Your task to perform on an android device: toggle pop-ups in chrome Image 0: 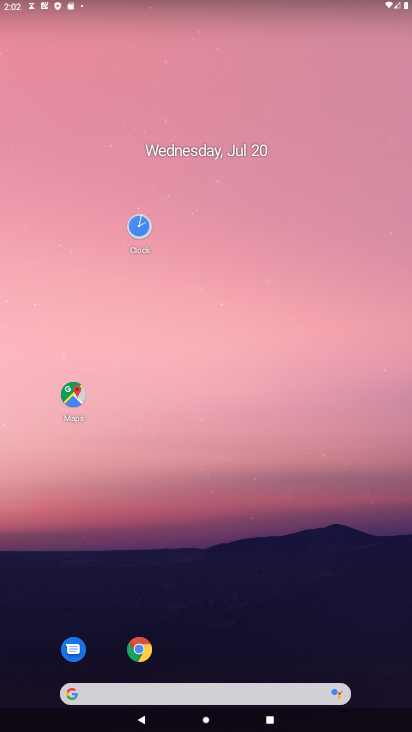
Step 0: click (143, 647)
Your task to perform on an android device: toggle pop-ups in chrome Image 1: 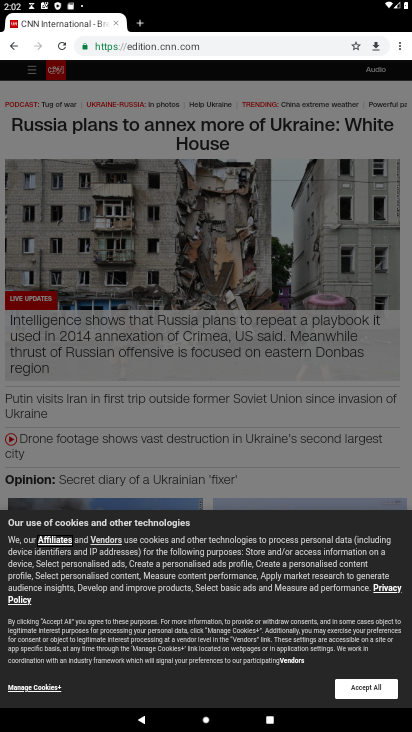
Step 1: click (397, 55)
Your task to perform on an android device: toggle pop-ups in chrome Image 2: 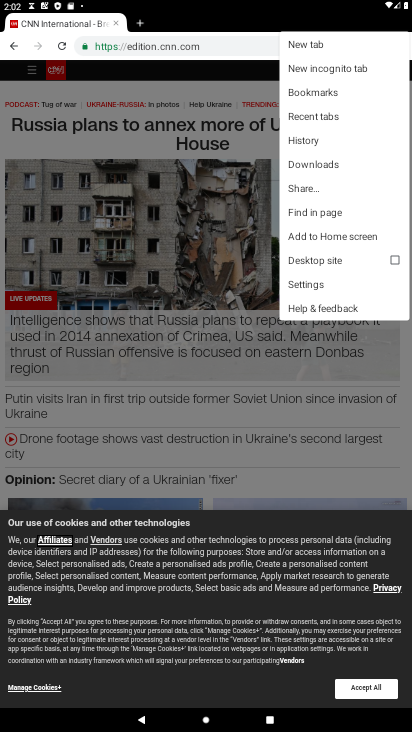
Step 2: click (323, 280)
Your task to perform on an android device: toggle pop-ups in chrome Image 3: 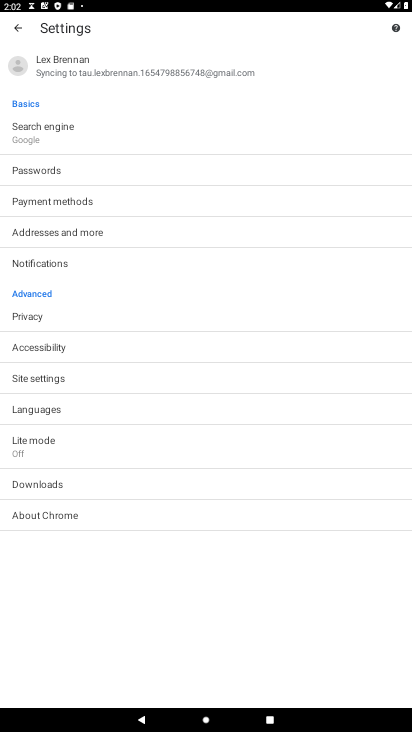
Step 3: click (75, 385)
Your task to perform on an android device: toggle pop-ups in chrome Image 4: 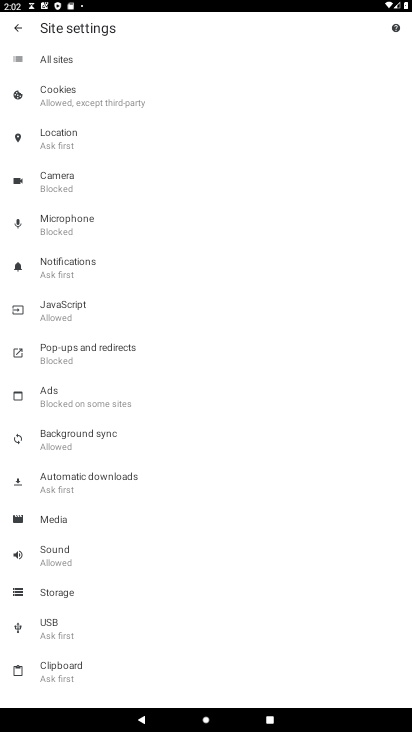
Step 4: click (138, 350)
Your task to perform on an android device: toggle pop-ups in chrome Image 5: 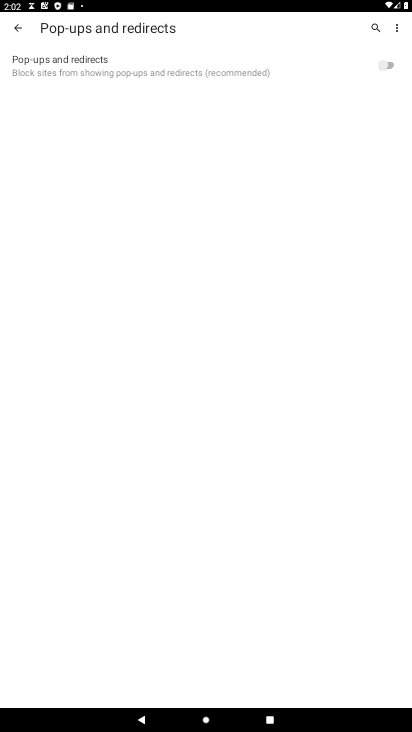
Step 5: click (376, 63)
Your task to perform on an android device: toggle pop-ups in chrome Image 6: 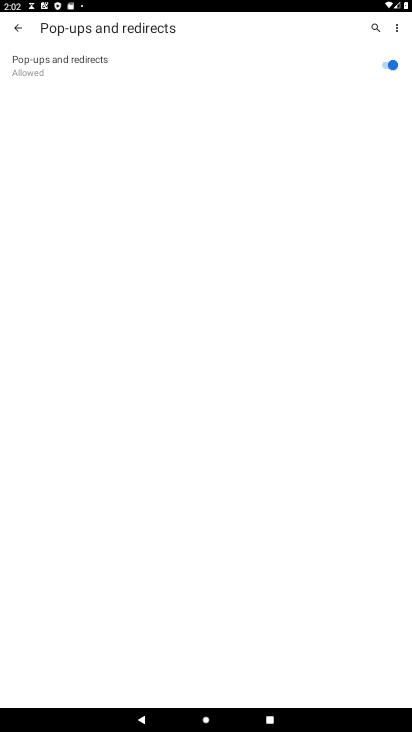
Step 6: task complete